Your task to perform on an android device: Do I have any events this weekend? Image 0: 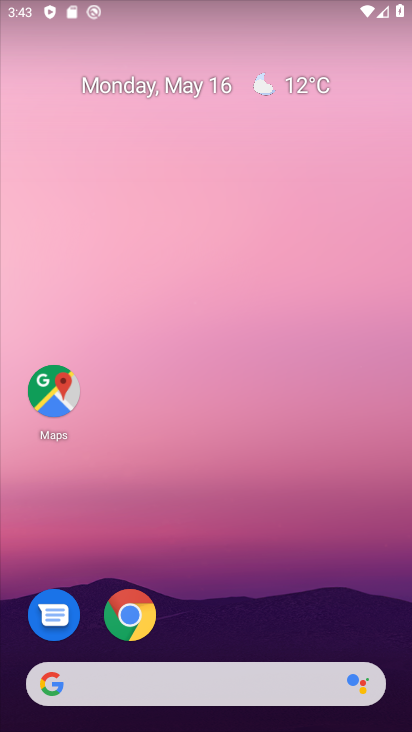
Step 0: press back button
Your task to perform on an android device: Do I have any events this weekend? Image 1: 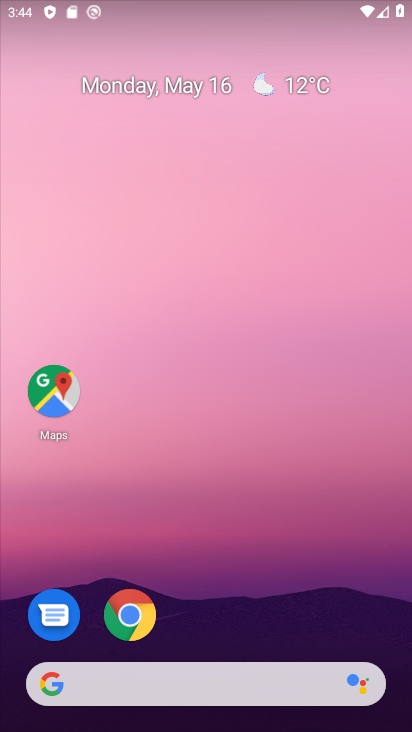
Step 1: drag from (223, 258) to (180, 53)
Your task to perform on an android device: Do I have any events this weekend? Image 2: 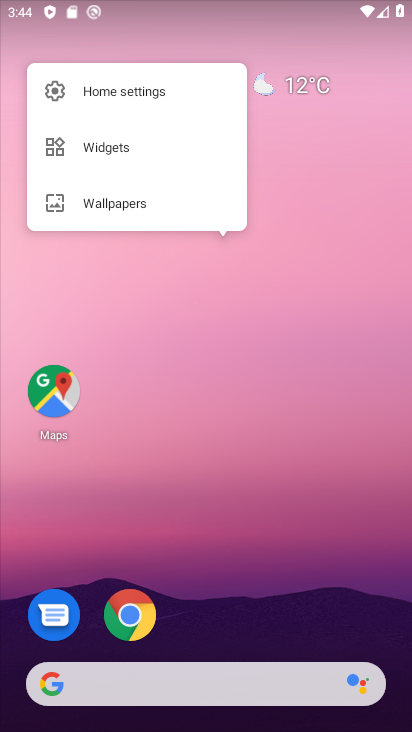
Step 2: drag from (354, 597) to (274, 14)
Your task to perform on an android device: Do I have any events this weekend? Image 3: 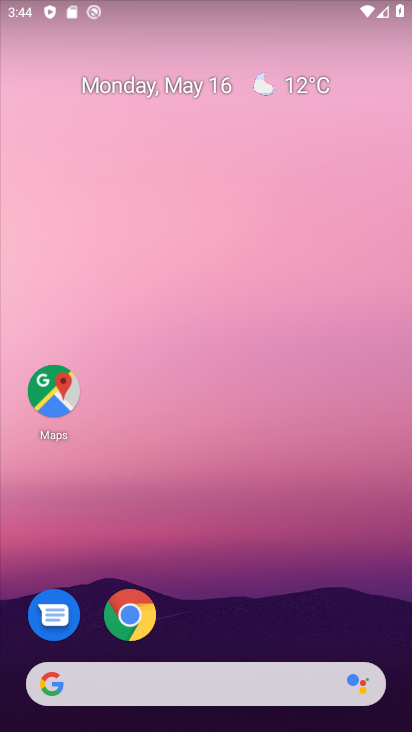
Step 3: drag from (247, 377) to (111, 64)
Your task to perform on an android device: Do I have any events this weekend? Image 4: 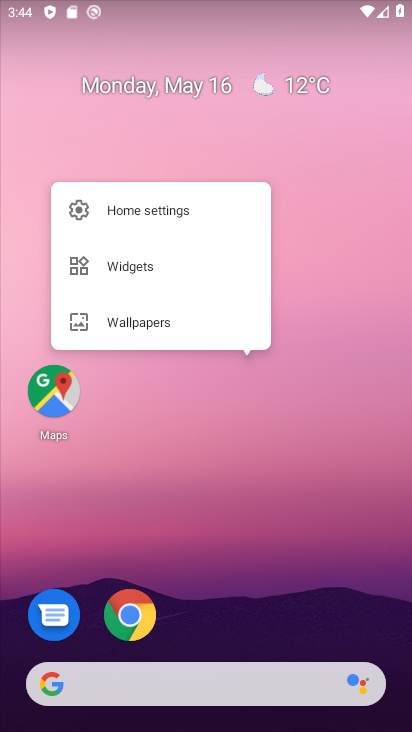
Step 4: drag from (197, 48) to (124, 25)
Your task to perform on an android device: Do I have any events this weekend? Image 5: 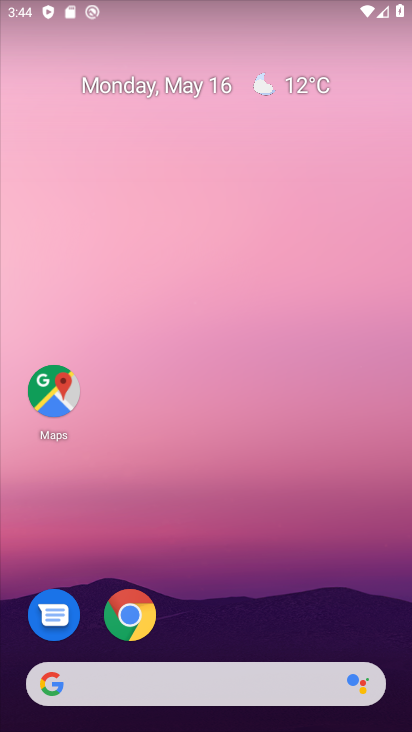
Step 5: drag from (201, 21) to (236, 115)
Your task to perform on an android device: Do I have any events this weekend? Image 6: 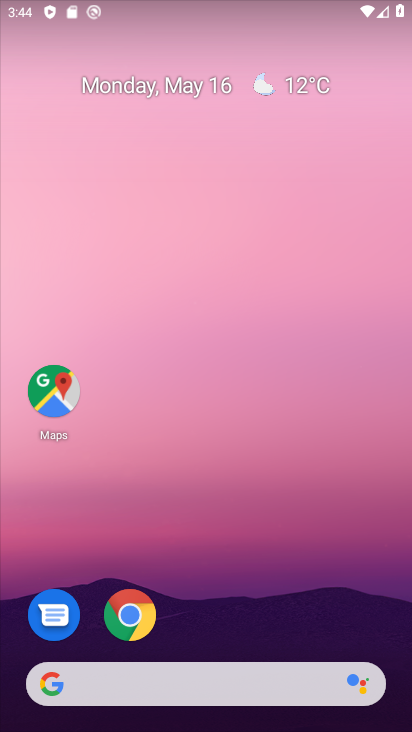
Step 6: drag from (182, 3) to (218, 22)
Your task to perform on an android device: Do I have any events this weekend? Image 7: 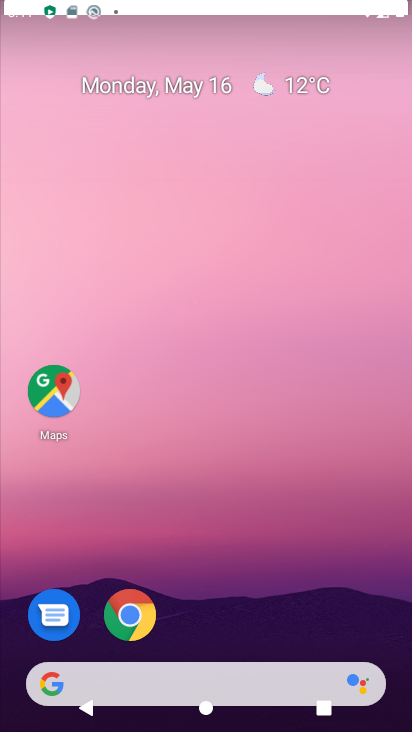
Step 7: drag from (0, 140) to (400, 62)
Your task to perform on an android device: Do I have any events this weekend? Image 8: 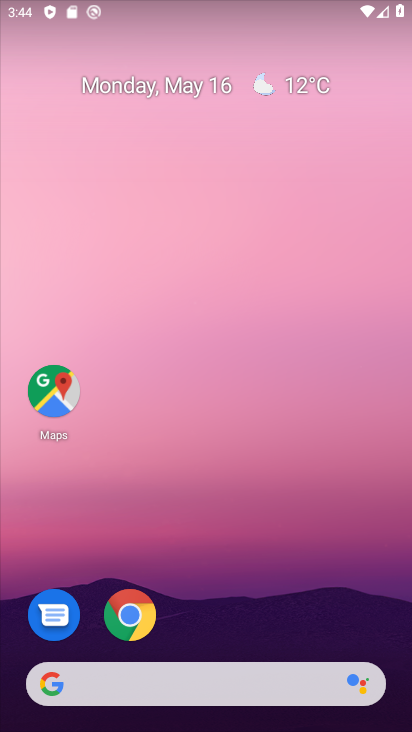
Step 8: drag from (291, 643) to (251, 80)
Your task to perform on an android device: Do I have any events this weekend? Image 9: 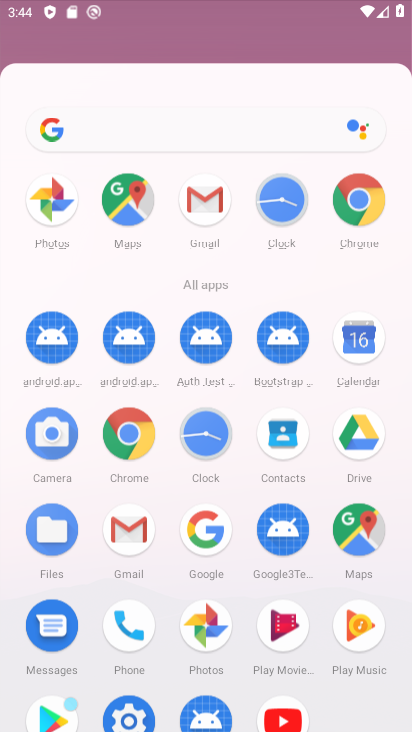
Step 9: click (234, 17)
Your task to perform on an android device: Do I have any events this weekend? Image 10: 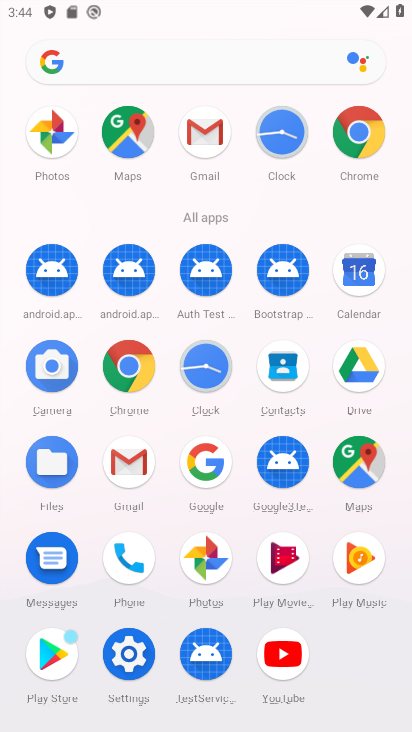
Step 10: drag from (326, 621) to (268, 47)
Your task to perform on an android device: Do I have any events this weekend? Image 11: 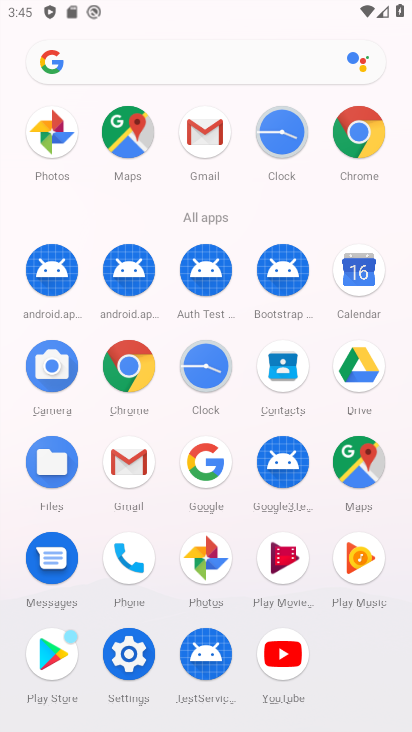
Step 11: click (348, 279)
Your task to perform on an android device: Do I have any events this weekend? Image 12: 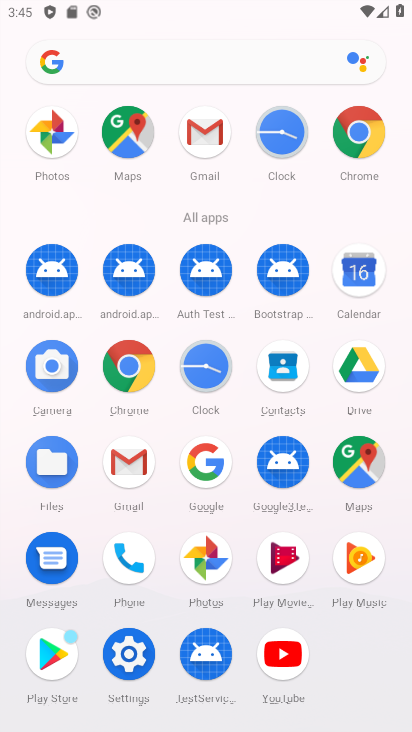
Step 12: click (349, 279)
Your task to perform on an android device: Do I have any events this weekend? Image 13: 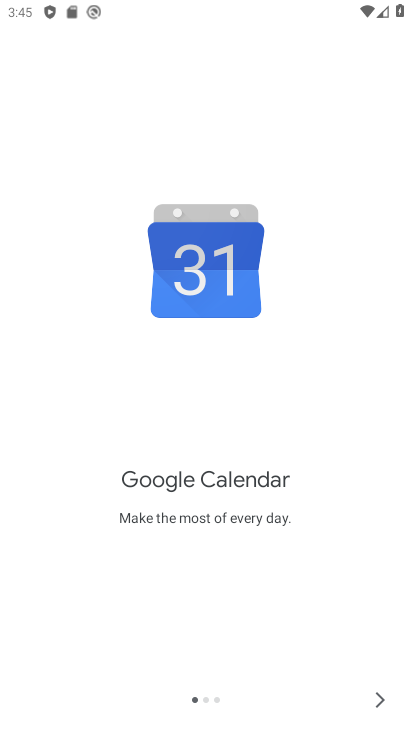
Step 13: click (385, 697)
Your task to perform on an android device: Do I have any events this weekend? Image 14: 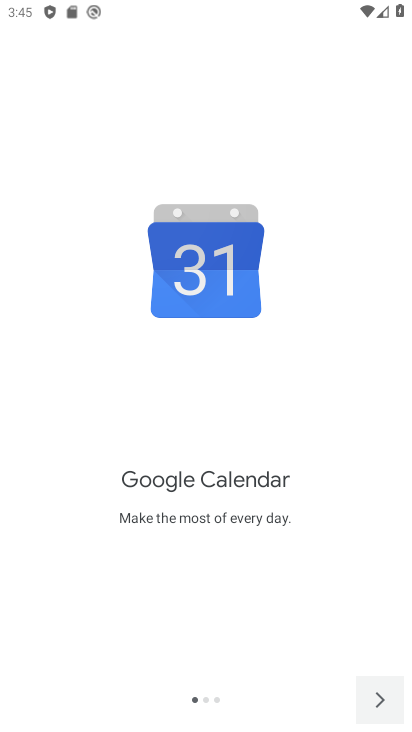
Step 14: click (385, 697)
Your task to perform on an android device: Do I have any events this weekend? Image 15: 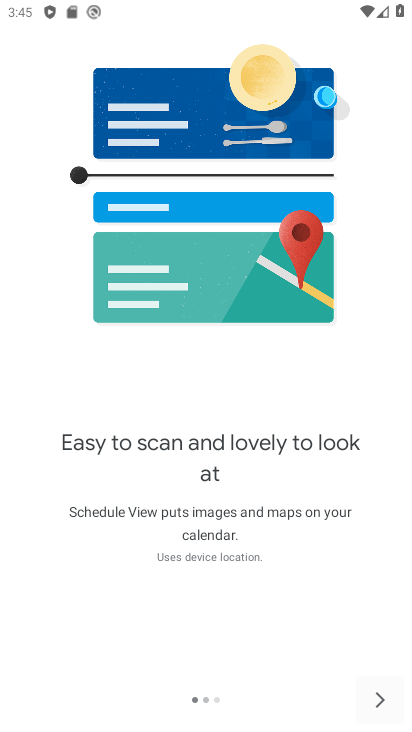
Step 15: click (385, 697)
Your task to perform on an android device: Do I have any events this weekend? Image 16: 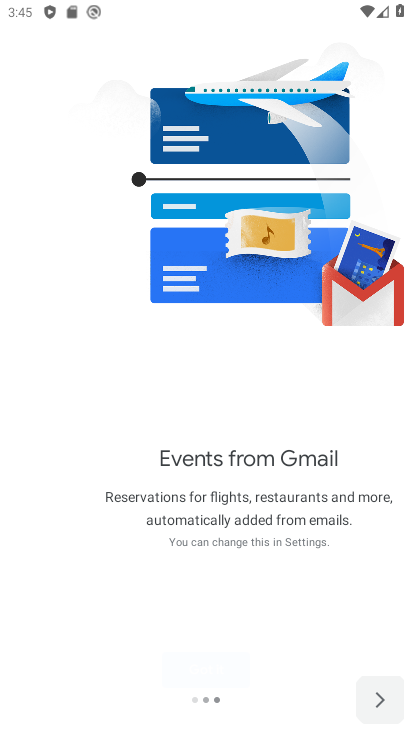
Step 16: click (384, 697)
Your task to perform on an android device: Do I have any events this weekend? Image 17: 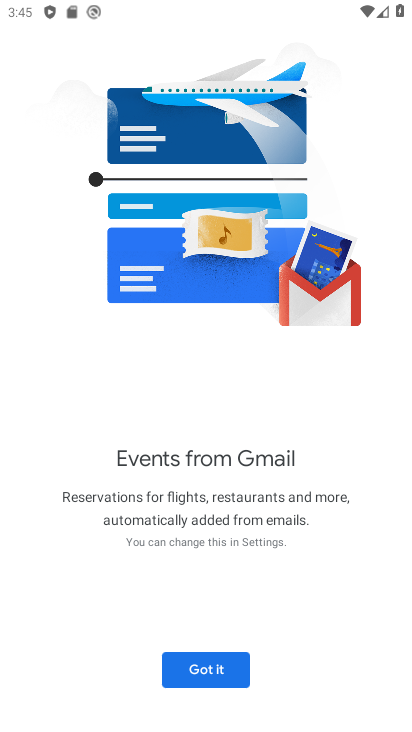
Step 17: click (384, 697)
Your task to perform on an android device: Do I have any events this weekend? Image 18: 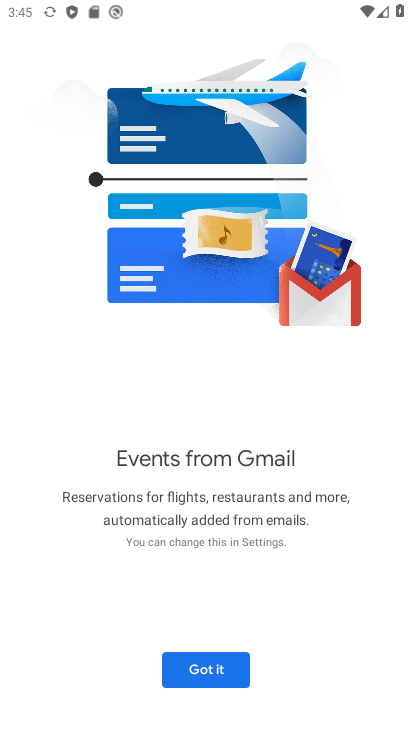
Step 18: click (219, 679)
Your task to perform on an android device: Do I have any events this weekend? Image 19: 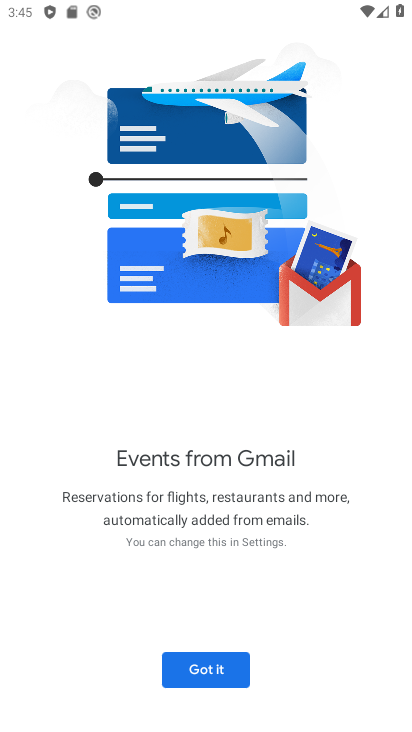
Step 19: click (219, 679)
Your task to perform on an android device: Do I have any events this weekend? Image 20: 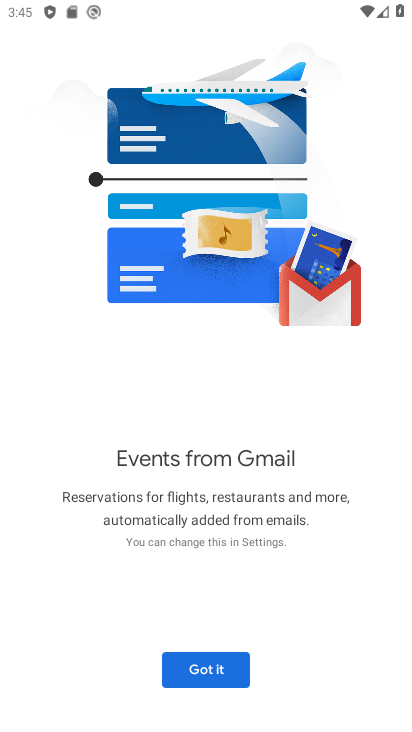
Step 20: click (219, 679)
Your task to perform on an android device: Do I have any events this weekend? Image 21: 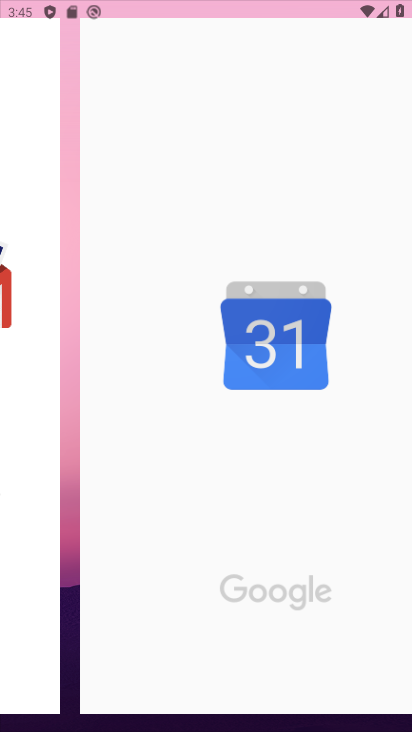
Step 21: click (211, 662)
Your task to perform on an android device: Do I have any events this weekend? Image 22: 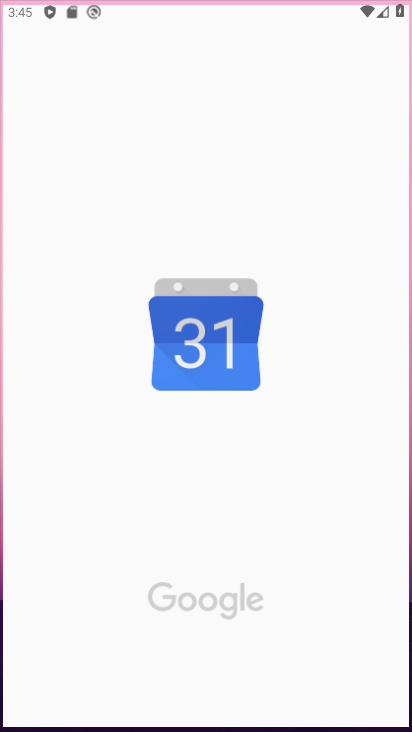
Step 22: click (211, 662)
Your task to perform on an android device: Do I have any events this weekend? Image 23: 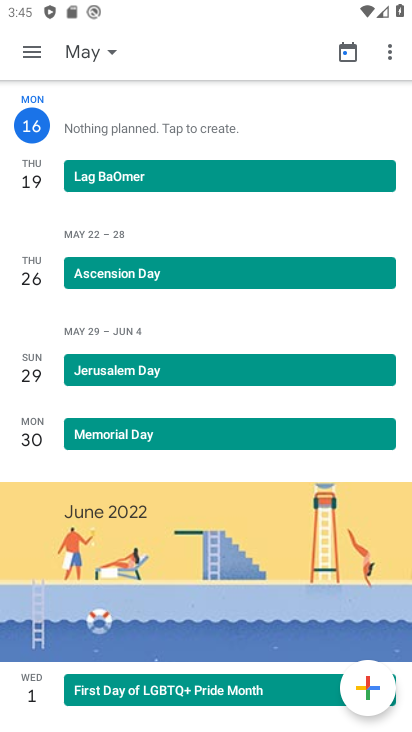
Step 23: click (109, 166)
Your task to perform on an android device: Do I have any events this weekend? Image 24: 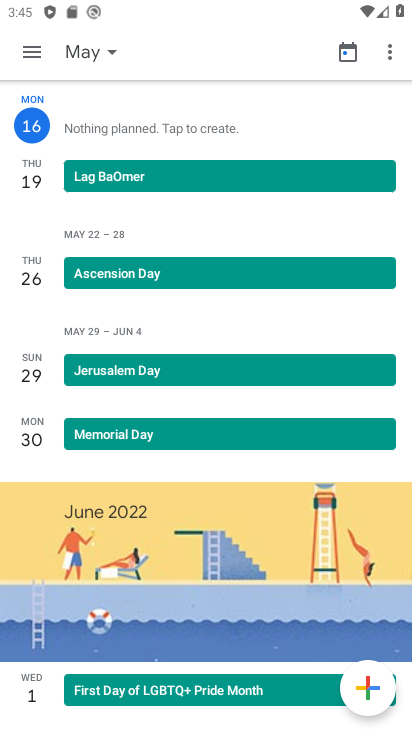
Step 24: click (107, 279)
Your task to perform on an android device: Do I have any events this weekend? Image 25: 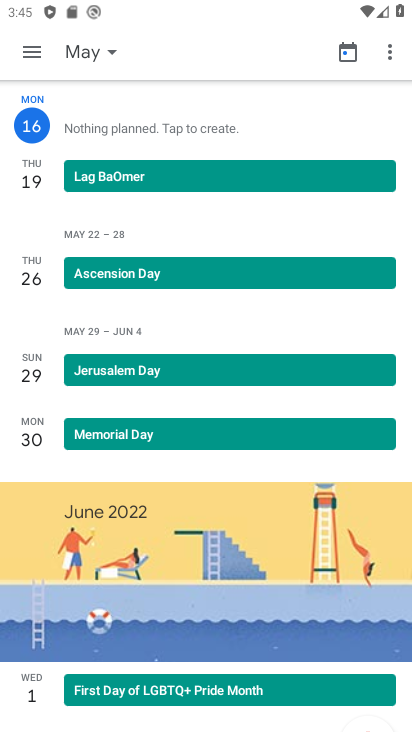
Step 25: click (107, 279)
Your task to perform on an android device: Do I have any events this weekend? Image 26: 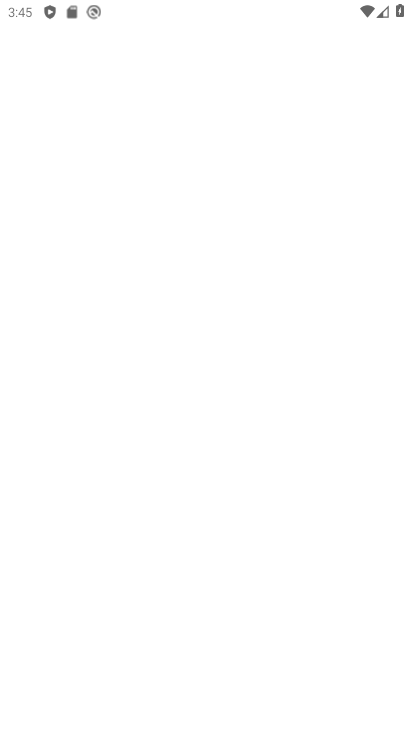
Step 26: click (107, 279)
Your task to perform on an android device: Do I have any events this weekend? Image 27: 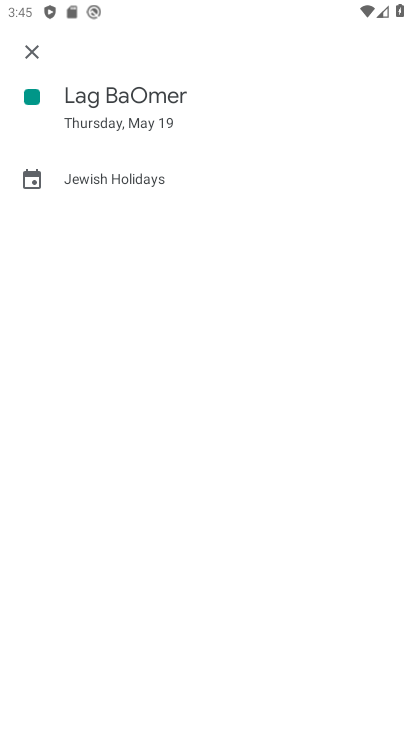
Step 27: click (107, 279)
Your task to perform on an android device: Do I have any events this weekend? Image 28: 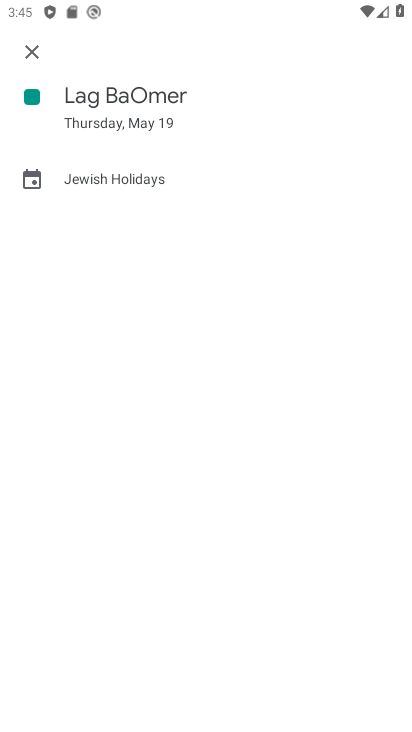
Step 28: click (107, 279)
Your task to perform on an android device: Do I have any events this weekend? Image 29: 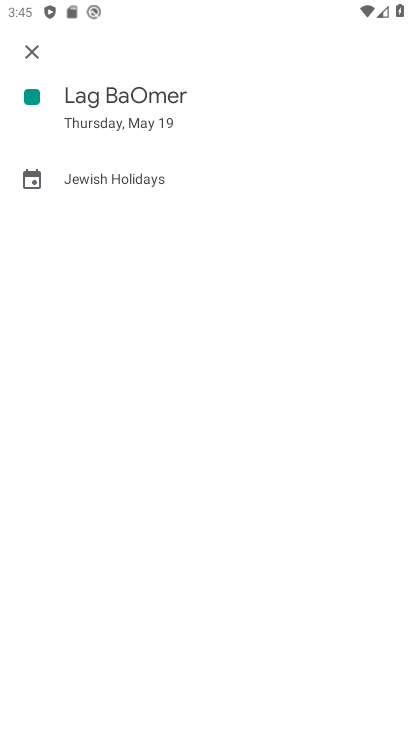
Step 29: task complete